Your task to perform on an android device: check the backup settings in the google photos Image 0: 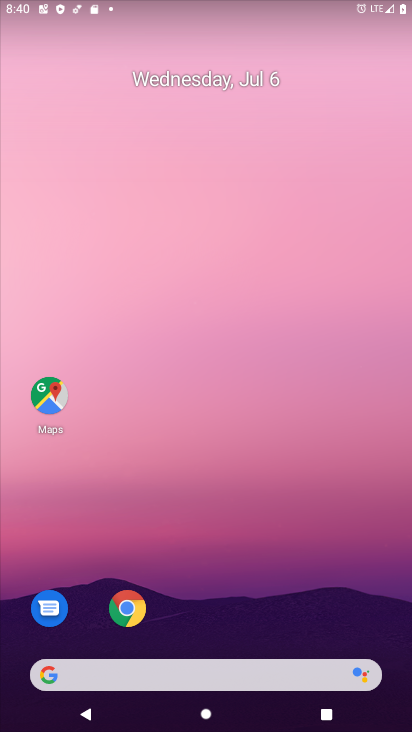
Step 0: drag from (364, 629) to (276, 0)
Your task to perform on an android device: check the backup settings in the google photos Image 1: 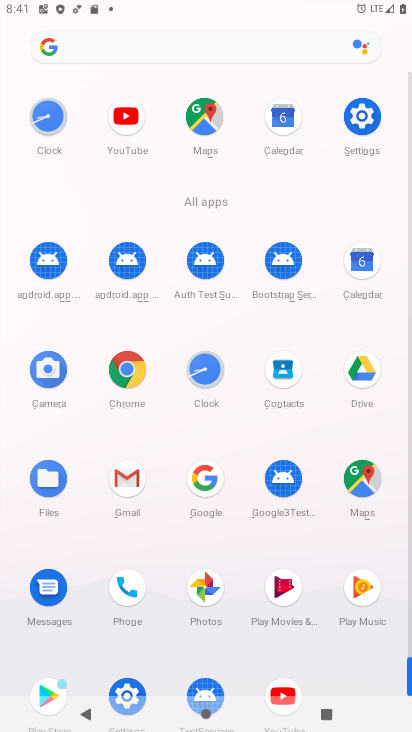
Step 1: click (201, 587)
Your task to perform on an android device: check the backup settings in the google photos Image 2: 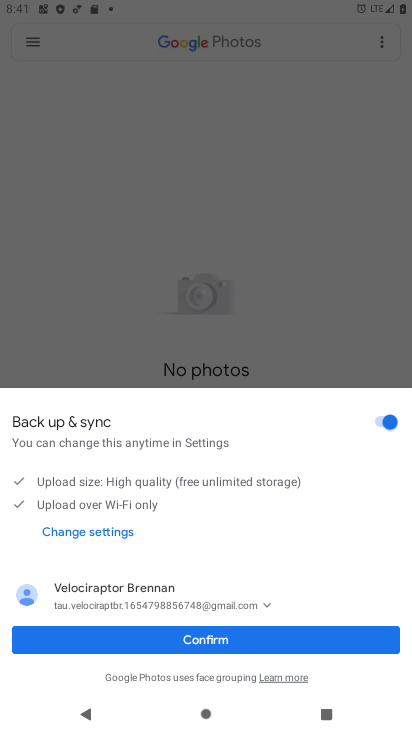
Step 2: click (233, 636)
Your task to perform on an android device: check the backup settings in the google photos Image 3: 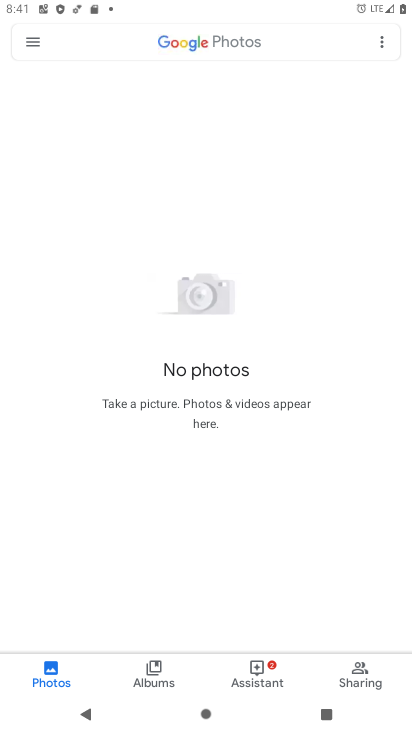
Step 3: click (379, 34)
Your task to perform on an android device: check the backup settings in the google photos Image 4: 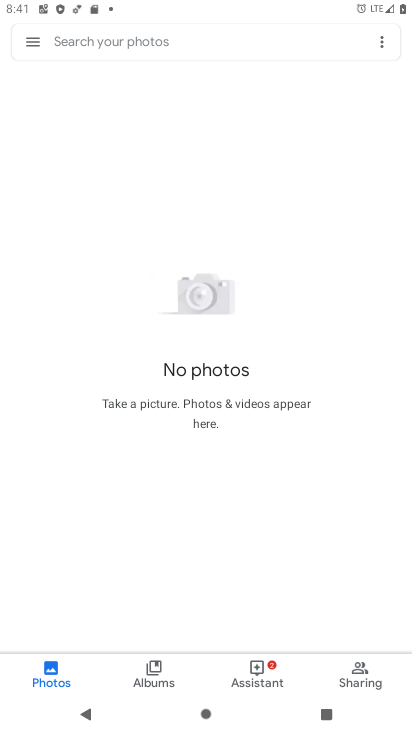
Step 4: click (379, 40)
Your task to perform on an android device: check the backup settings in the google photos Image 5: 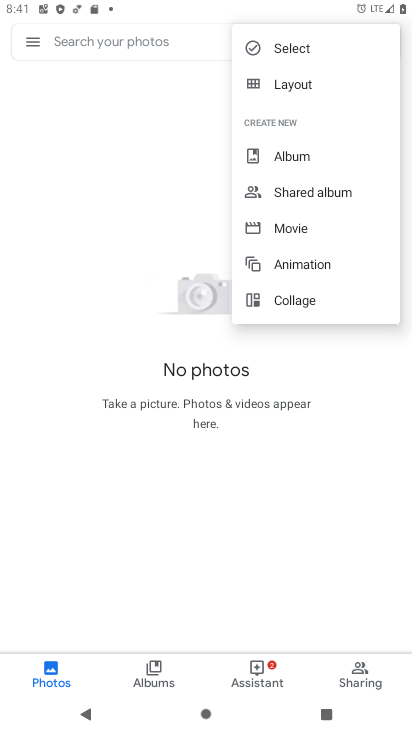
Step 5: click (33, 36)
Your task to perform on an android device: check the backup settings in the google photos Image 6: 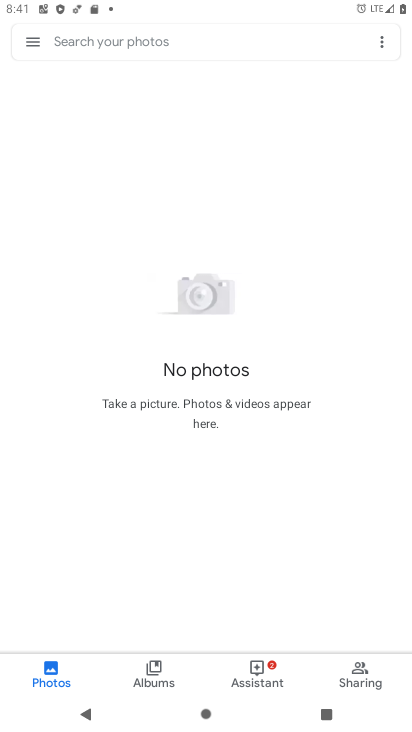
Step 6: click (33, 36)
Your task to perform on an android device: check the backup settings in the google photos Image 7: 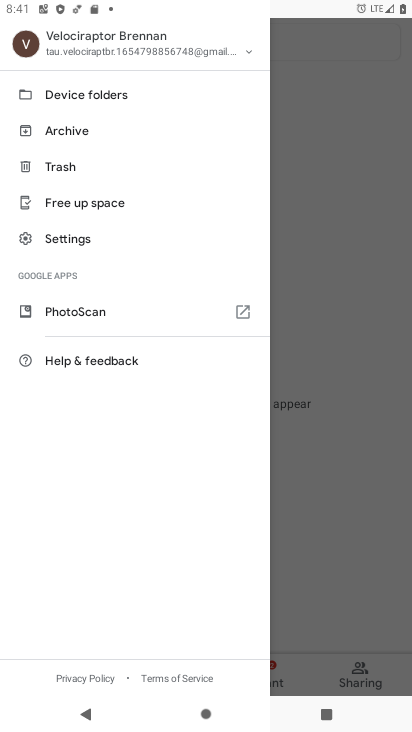
Step 7: click (97, 245)
Your task to perform on an android device: check the backup settings in the google photos Image 8: 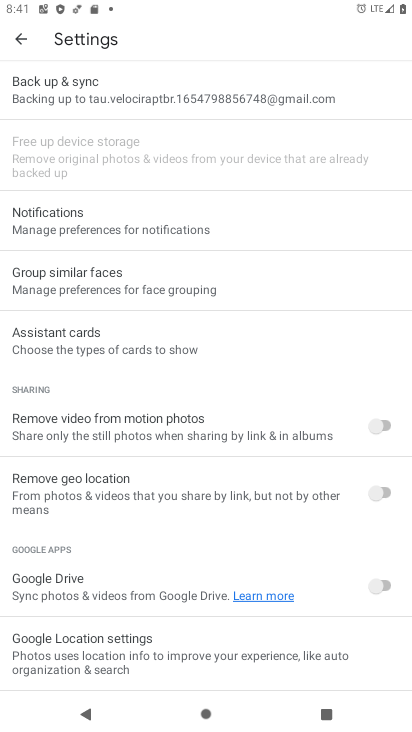
Step 8: click (261, 102)
Your task to perform on an android device: check the backup settings in the google photos Image 9: 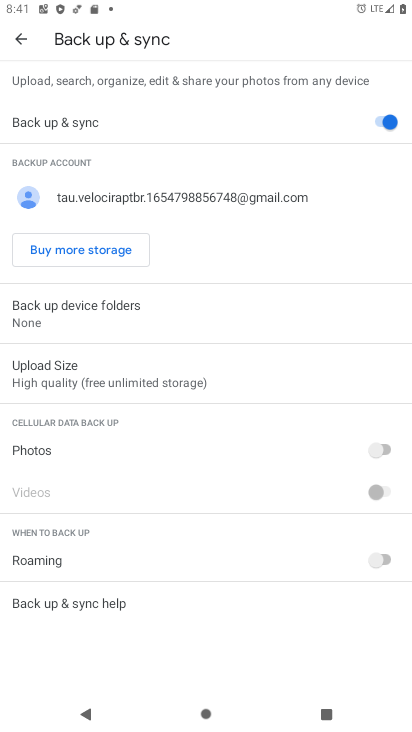
Step 9: task complete